Your task to perform on an android device: Open sound settings Image 0: 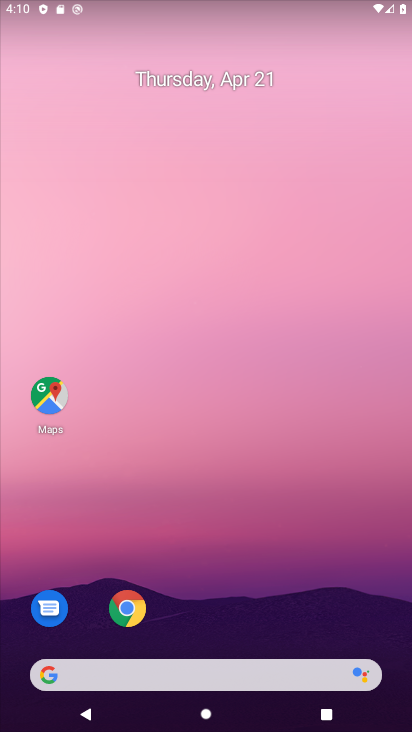
Step 0: drag from (263, 330) to (261, 273)
Your task to perform on an android device: Open sound settings Image 1: 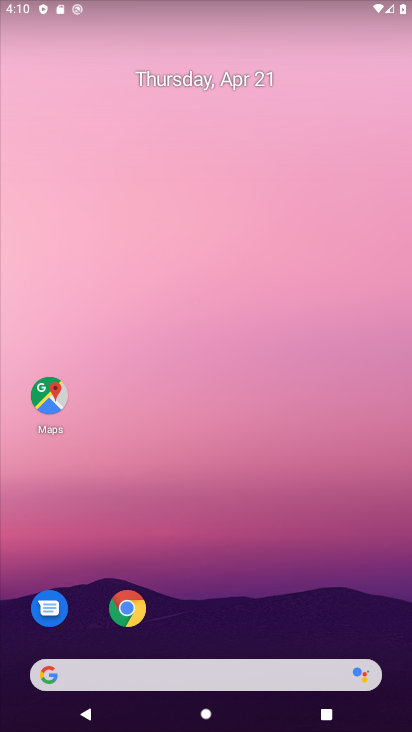
Step 1: drag from (210, 620) to (243, 197)
Your task to perform on an android device: Open sound settings Image 2: 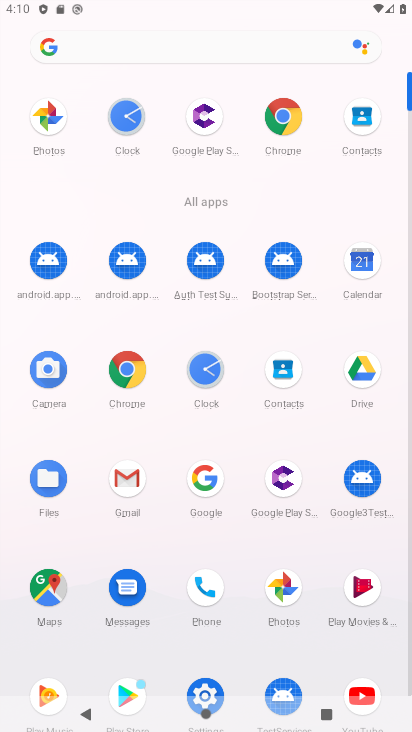
Step 2: click (207, 683)
Your task to perform on an android device: Open sound settings Image 3: 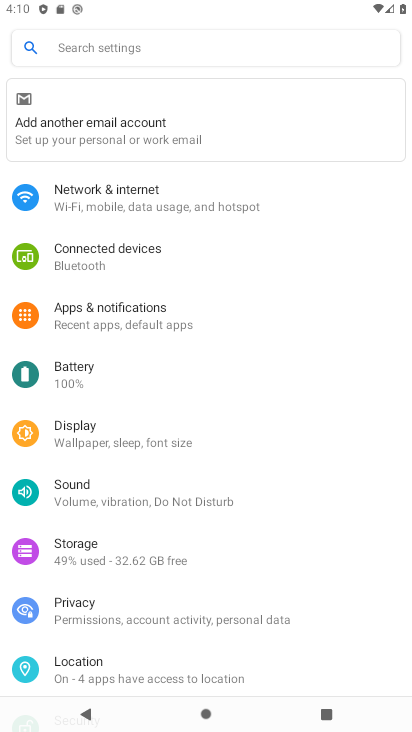
Step 3: click (82, 498)
Your task to perform on an android device: Open sound settings Image 4: 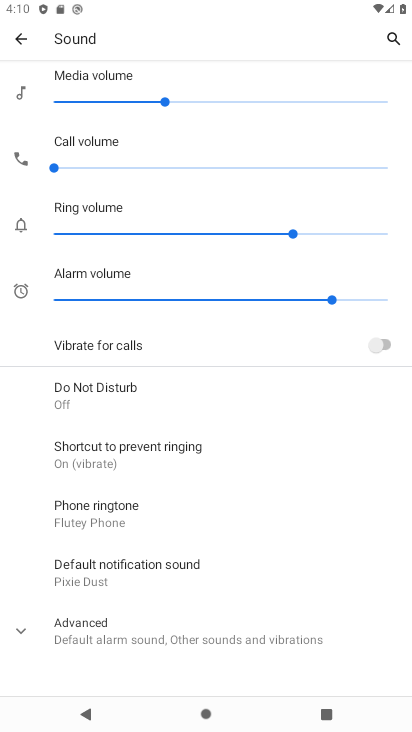
Step 4: task complete